Your task to perform on an android device: install app "Nova Launcher" Image 0: 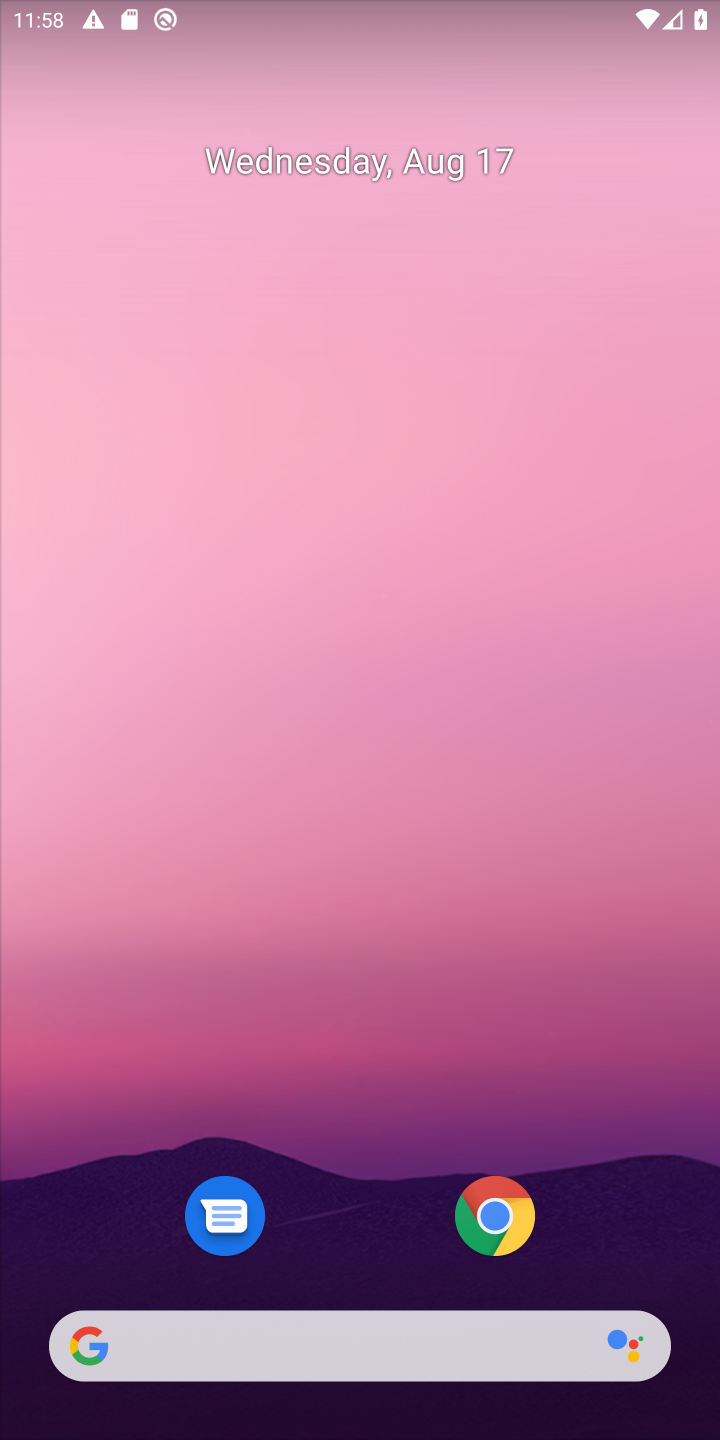
Step 0: drag from (590, 1145) to (468, 448)
Your task to perform on an android device: install app "Nova Launcher" Image 1: 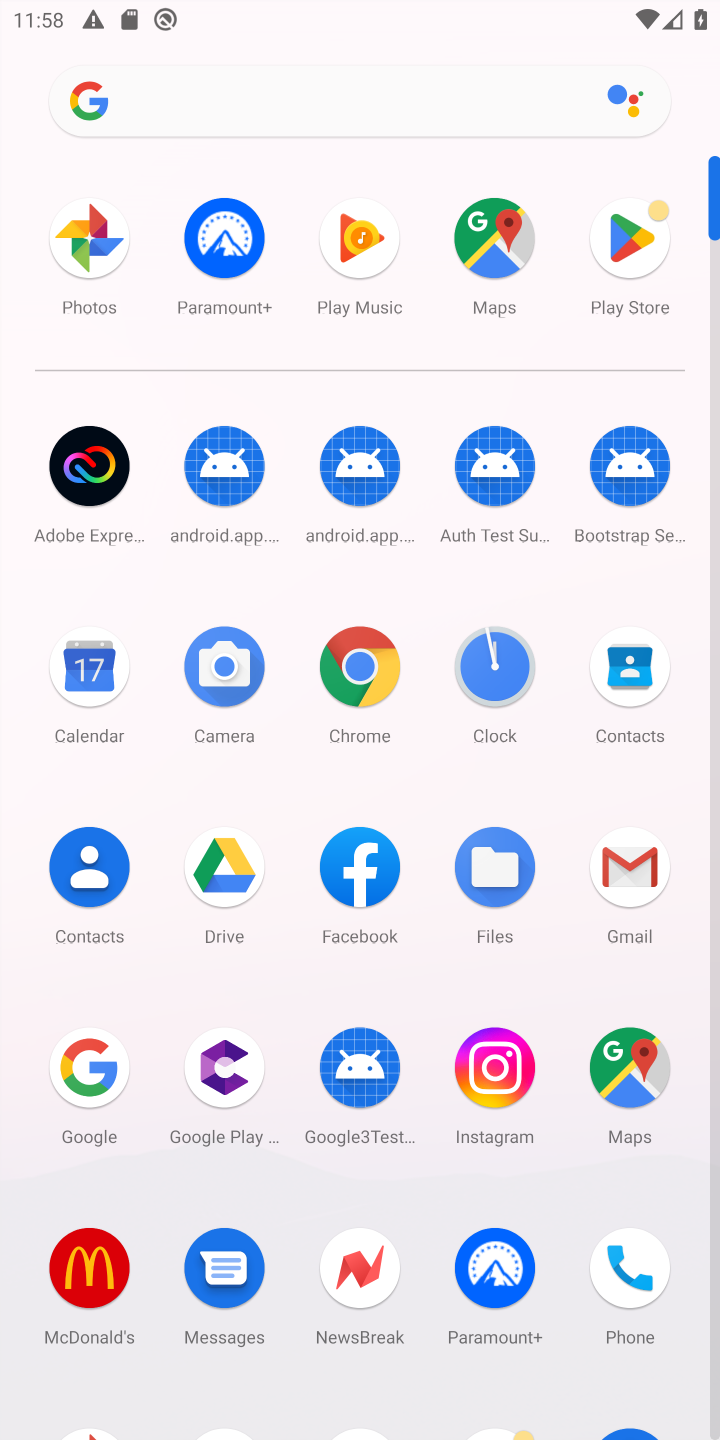
Step 1: drag from (558, 1002) to (466, 329)
Your task to perform on an android device: install app "Nova Launcher" Image 2: 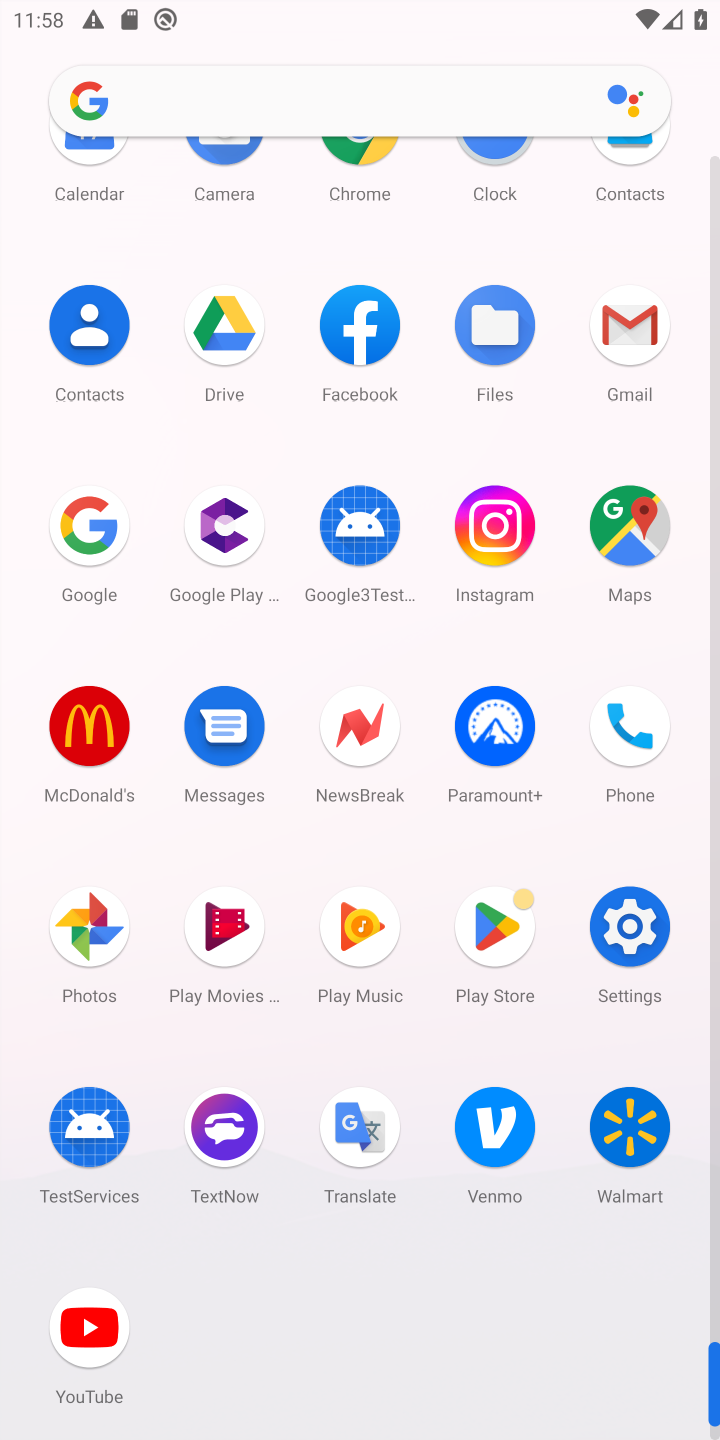
Step 2: click (508, 919)
Your task to perform on an android device: install app "Nova Launcher" Image 3: 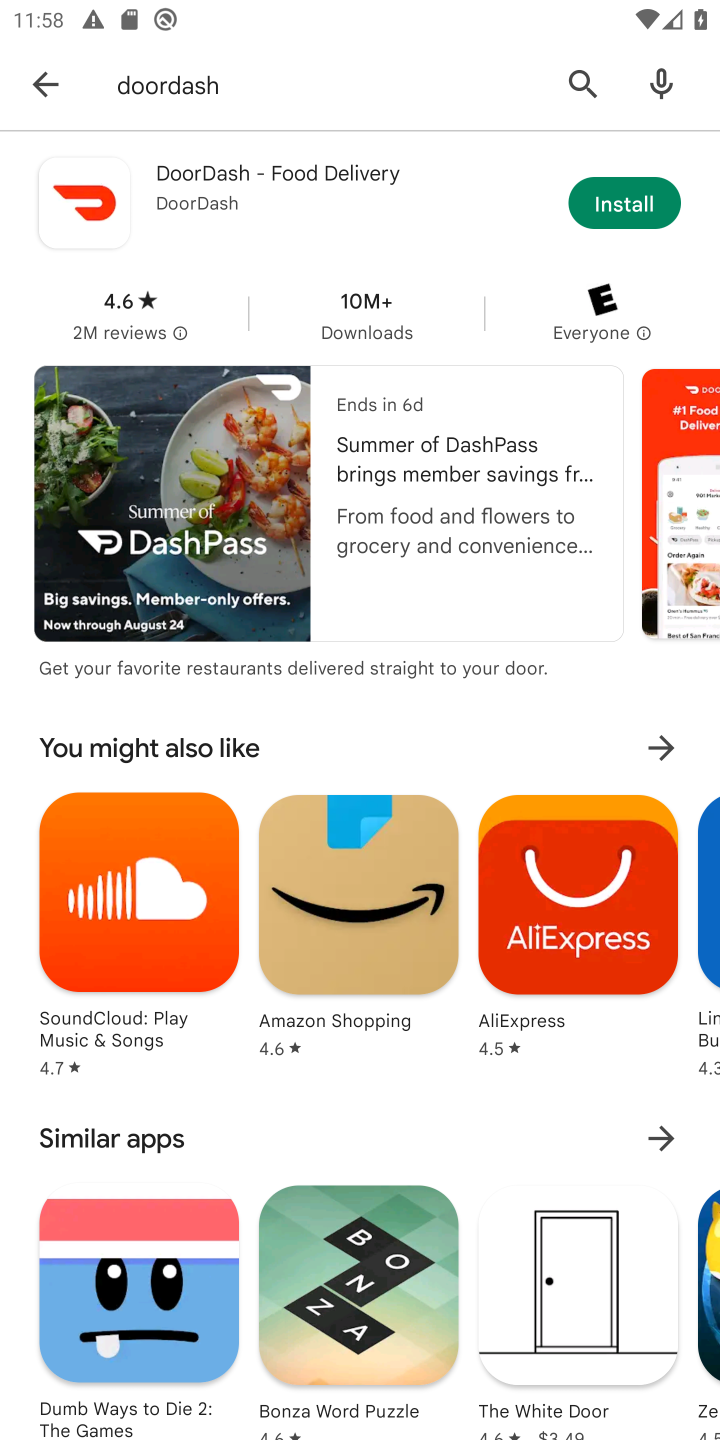
Step 3: click (566, 83)
Your task to perform on an android device: install app "Nova Launcher" Image 4: 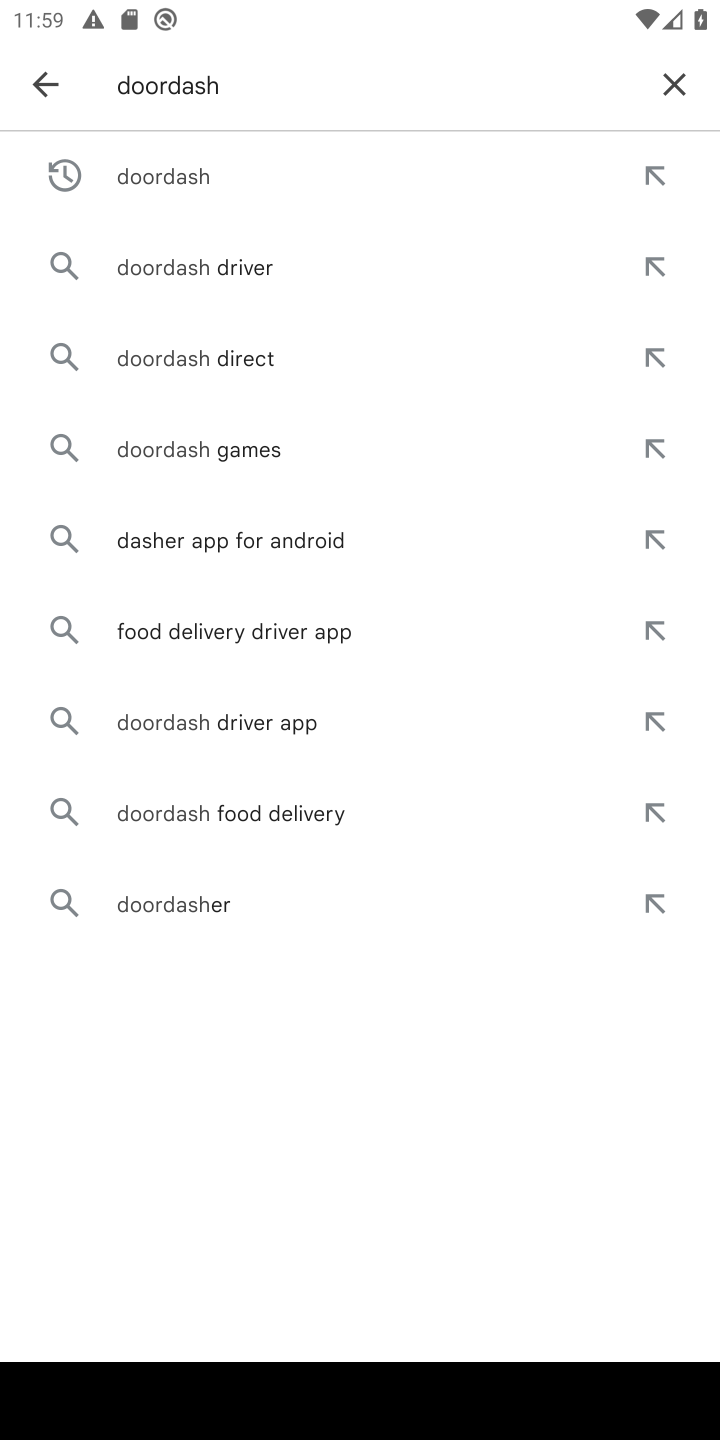
Step 4: click (677, 85)
Your task to perform on an android device: install app "Nova Launcher" Image 5: 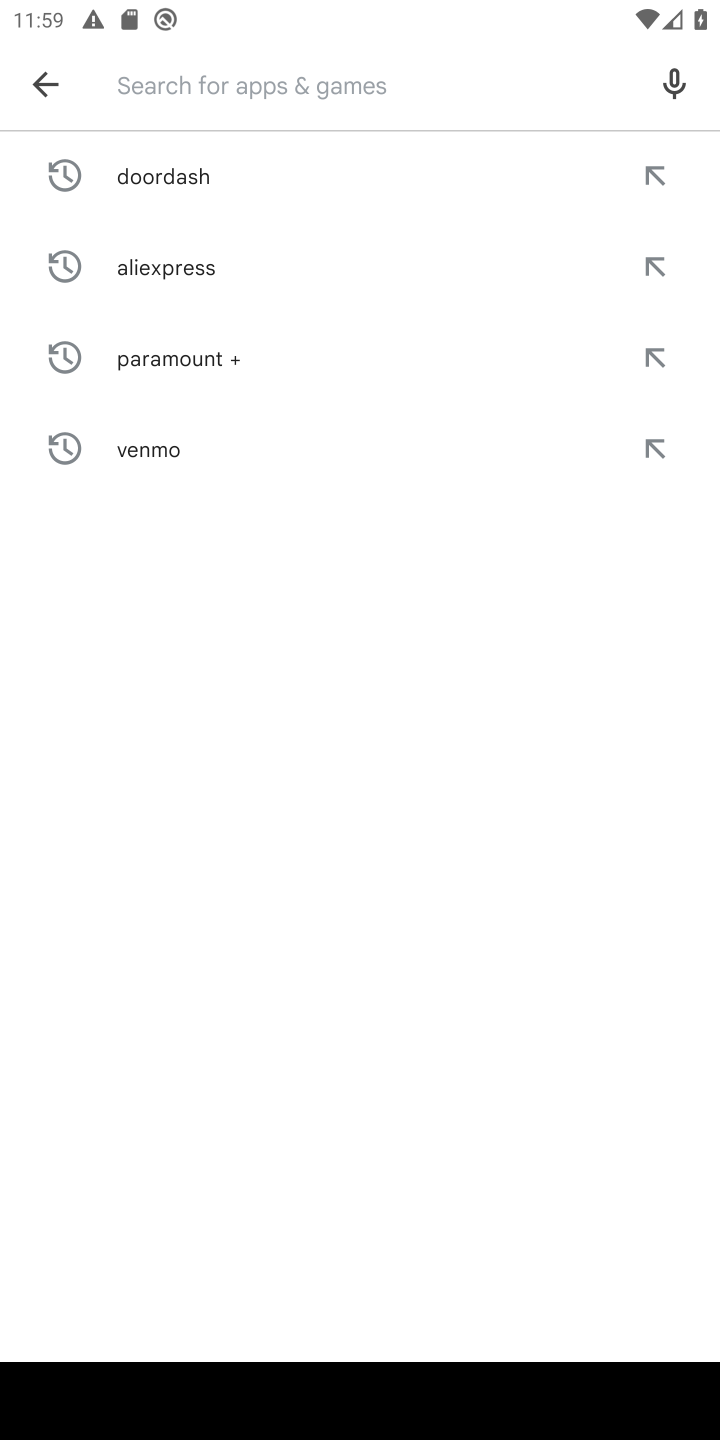
Step 5: type "nova"
Your task to perform on an android device: install app "Nova Launcher" Image 6: 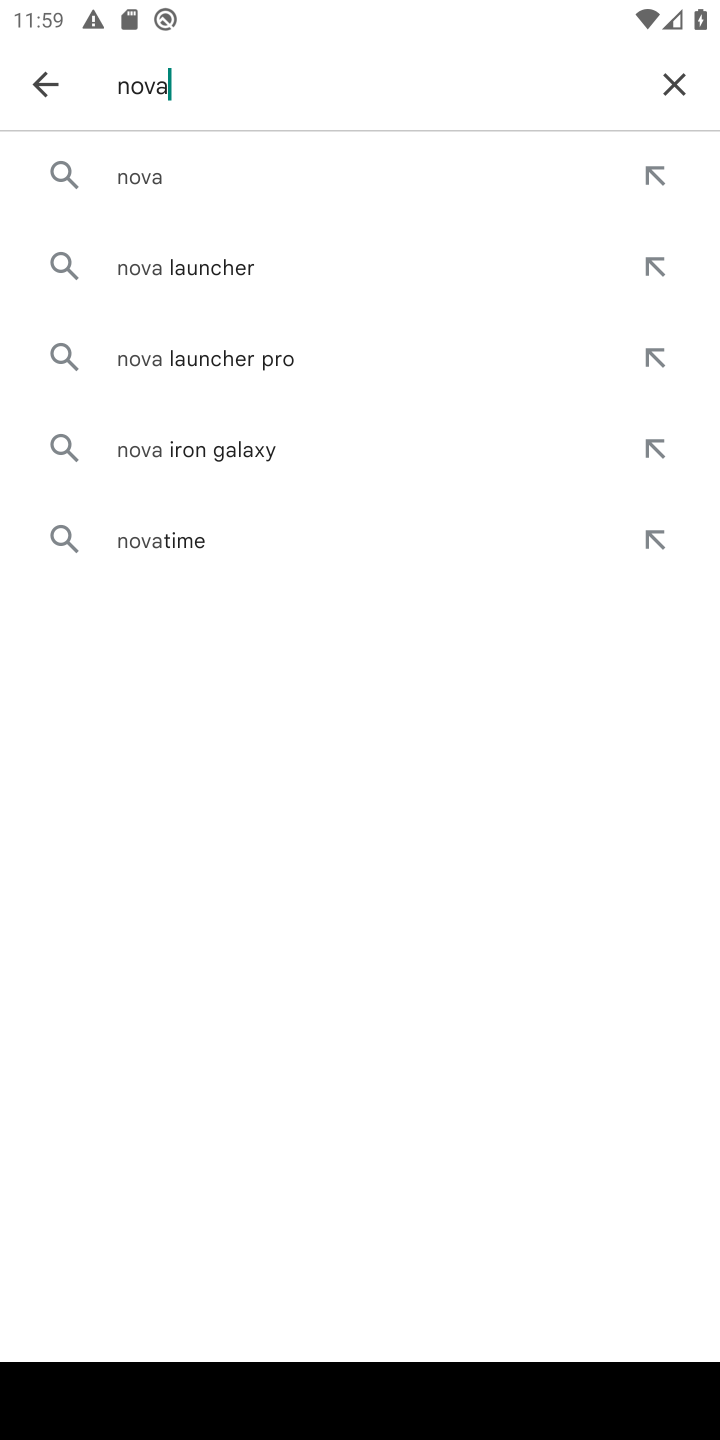
Step 6: click (214, 149)
Your task to perform on an android device: install app "Nova Launcher" Image 7: 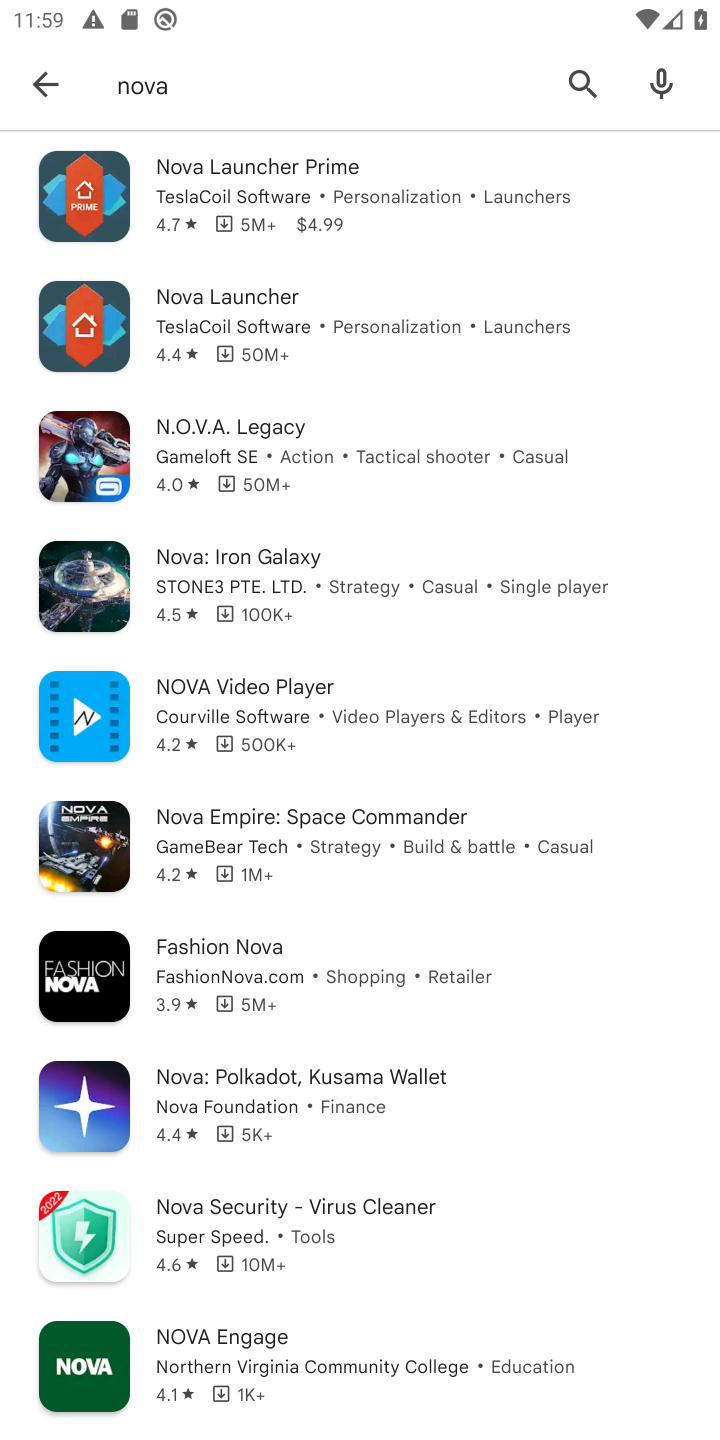
Step 7: click (403, 310)
Your task to perform on an android device: install app "Nova Launcher" Image 8: 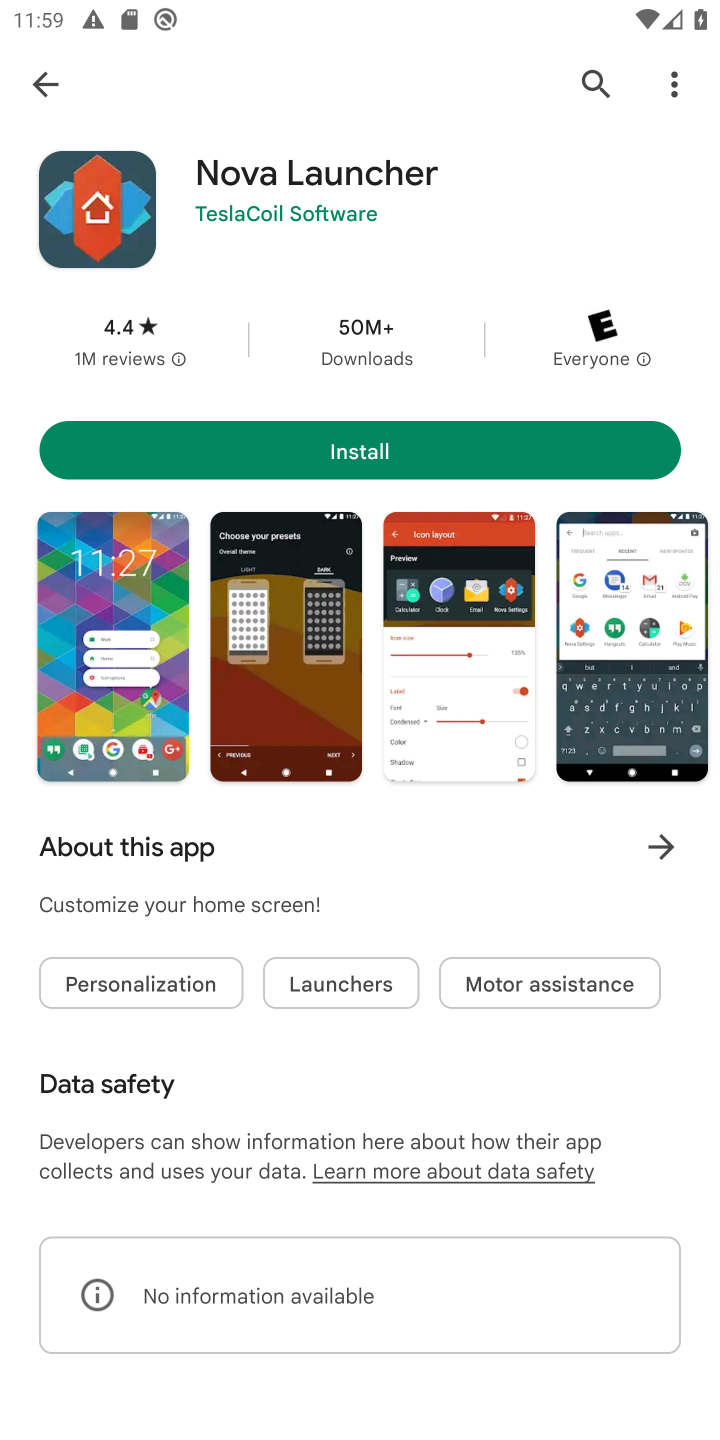
Step 8: click (604, 460)
Your task to perform on an android device: install app "Nova Launcher" Image 9: 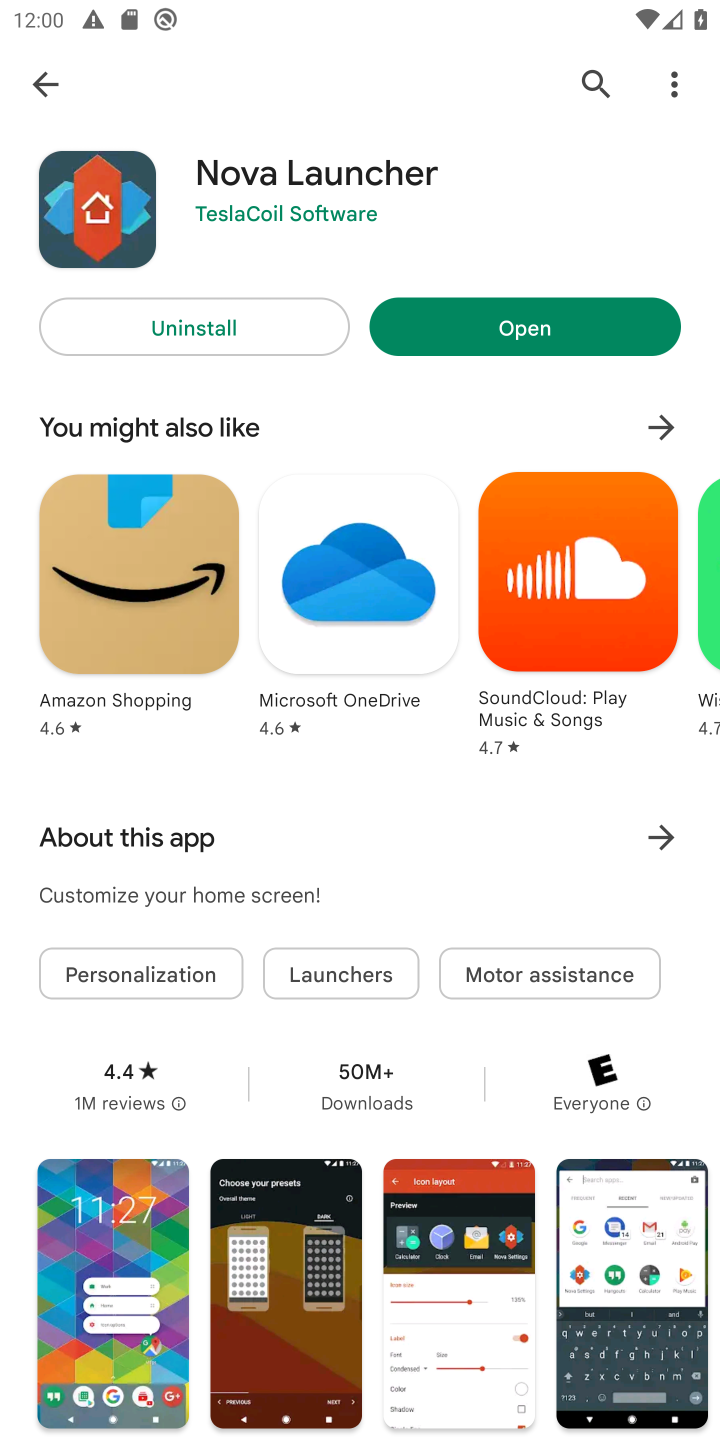
Step 9: task complete